Your task to perform on an android device: turn off improve location accuracy Image 0: 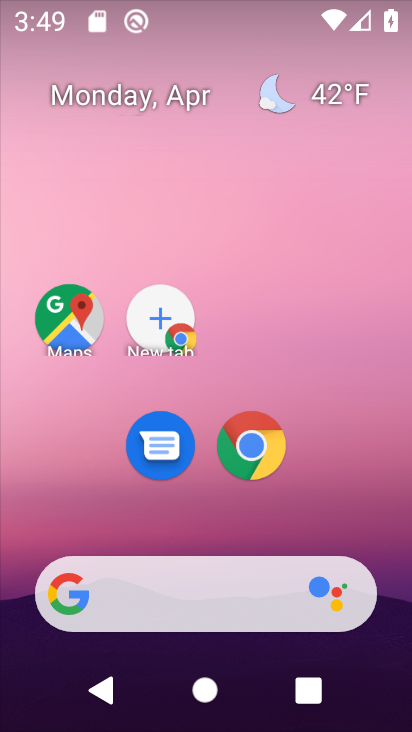
Step 0: drag from (214, 515) to (245, 56)
Your task to perform on an android device: turn off improve location accuracy Image 1: 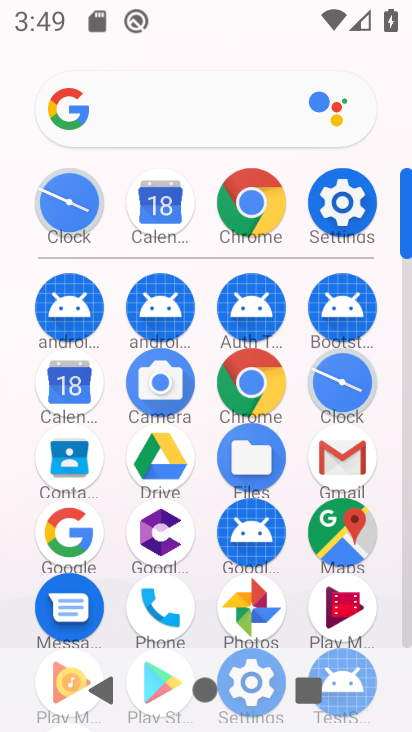
Step 1: click (330, 204)
Your task to perform on an android device: turn off improve location accuracy Image 2: 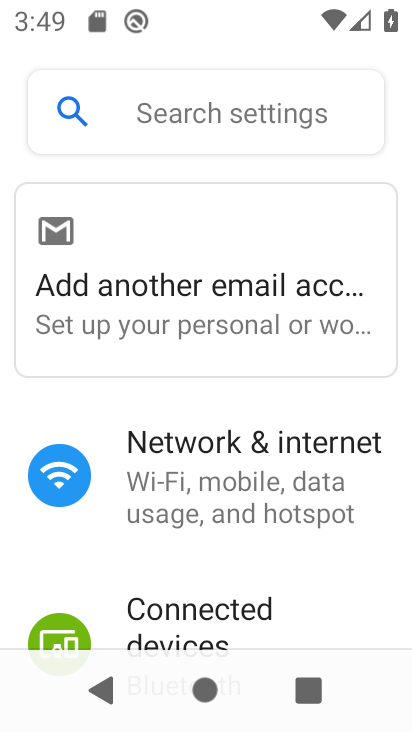
Step 2: drag from (212, 598) to (195, 225)
Your task to perform on an android device: turn off improve location accuracy Image 3: 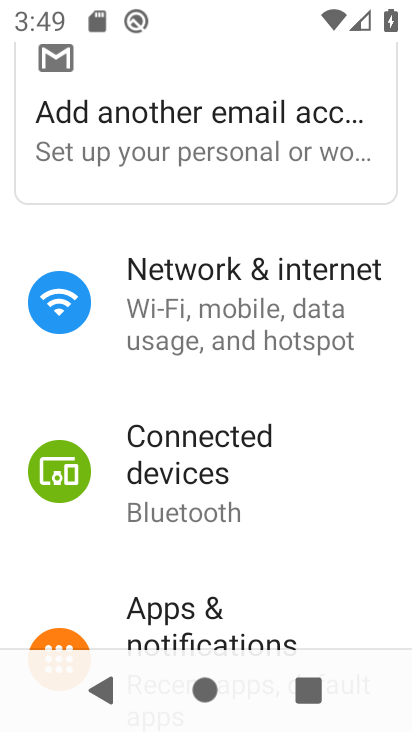
Step 3: drag from (220, 619) to (211, 161)
Your task to perform on an android device: turn off improve location accuracy Image 4: 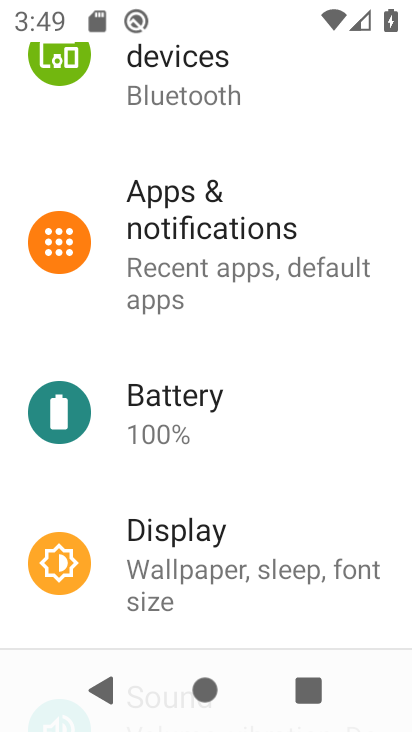
Step 4: drag from (224, 606) to (269, 145)
Your task to perform on an android device: turn off improve location accuracy Image 5: 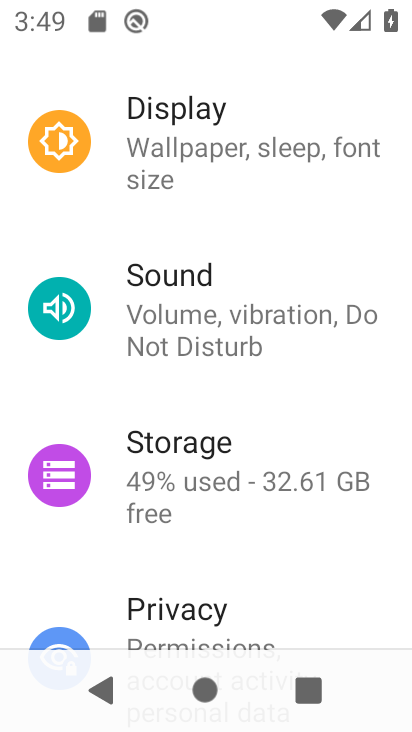
Step 5: drag from (227, 586) to (254, 88)
Your task to perform on an android device: turn off improve location accuracy Image 6: 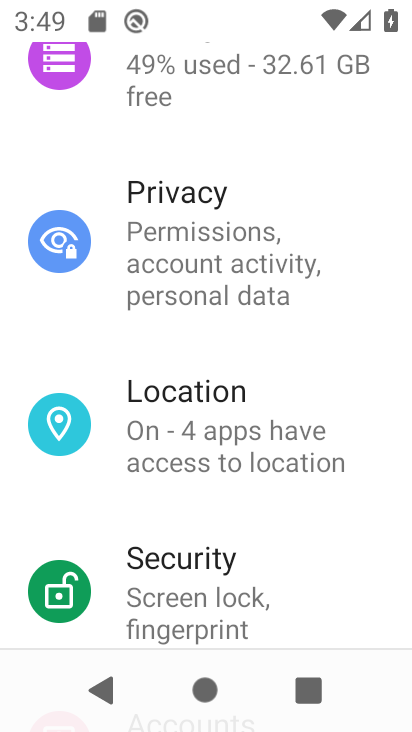
Step 6: click (115, 411)
Your task to perform on an android device: turn off improve location accuracy Image 7: 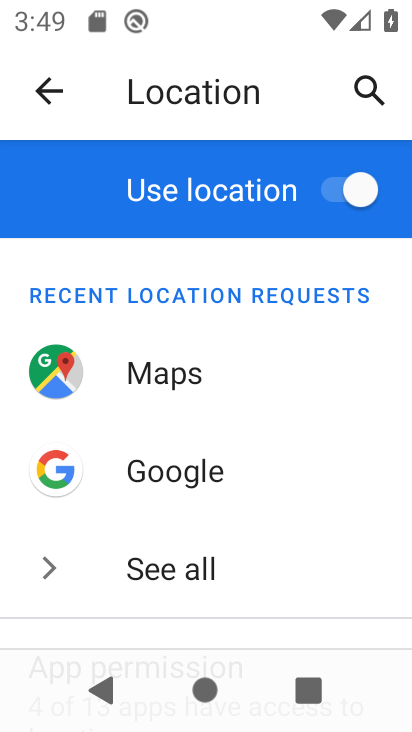
Step 7: drag from (185, 585) to (188, 246)
Your task to perform on an android device: turn off improve location accuracy Image 8: 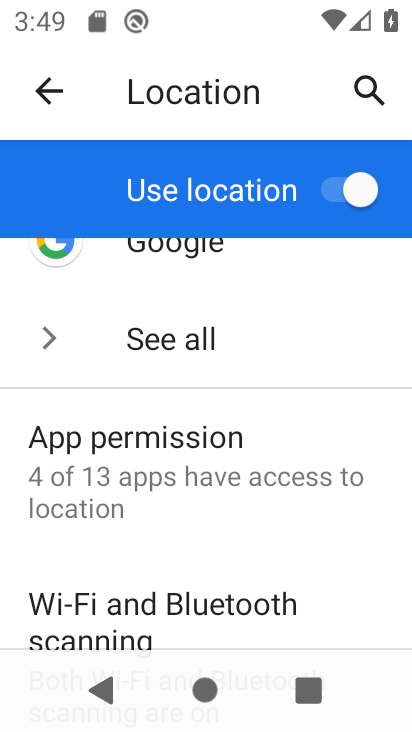
Step 8: drag from (239, 536) to (254, 234)
Your task to perform on an android device: turn off improve location accuracy Image 9: 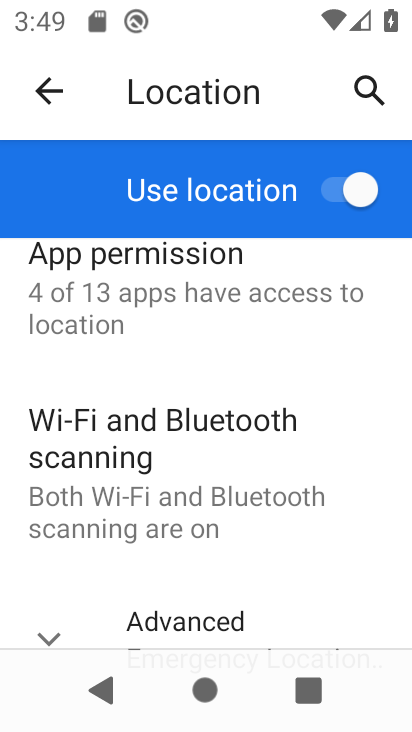
Step 9: drag from (190, 561) to (228, 228)
Your task to perform on an android device: turn off improve location accuracy Image 10: 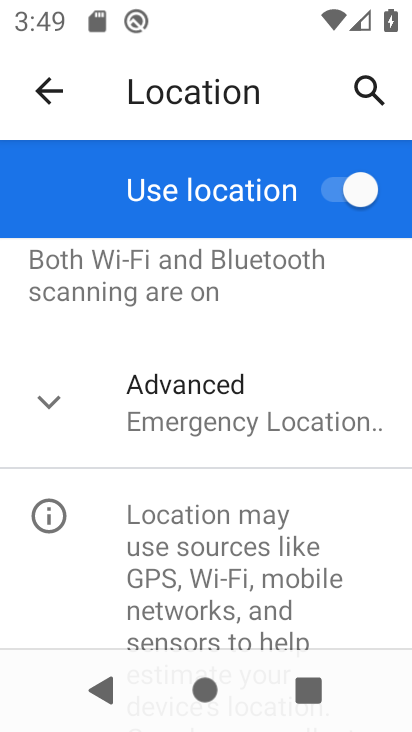
Step 10: click (46, 401)
Your task to perform on an android device: turn off improve location accuracy Image 11: 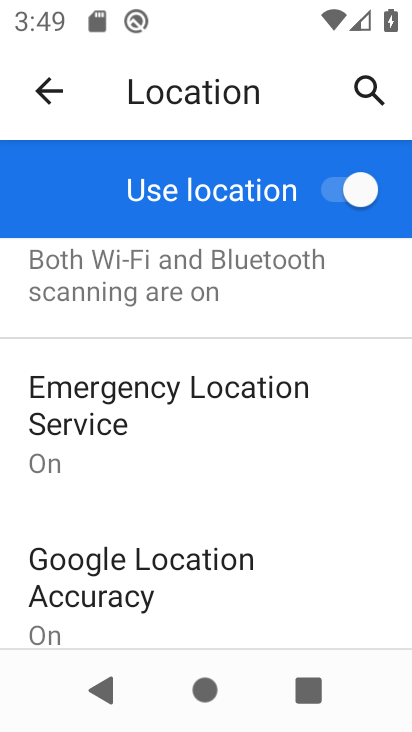
Step 11: click (189, 571)
Your task to perform on an android device: turn off improve location accuracy Image 12: 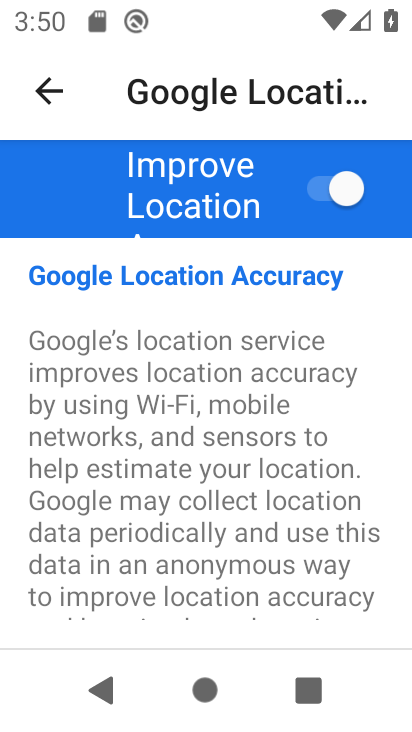
Step 12: click (329, 181)
Your task to perform on an android device: turn off improve location accuracy Image 13: 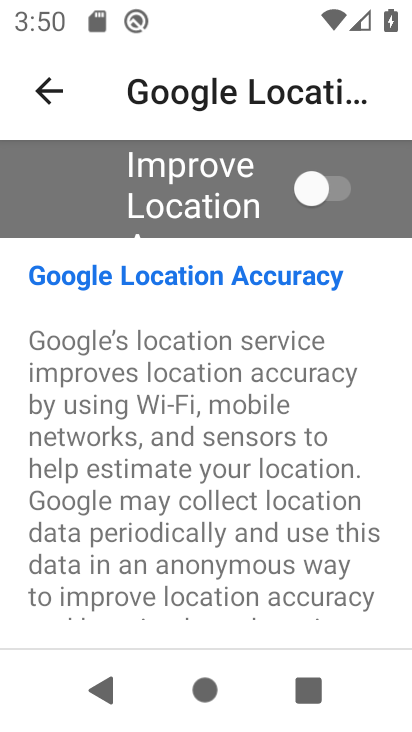
Step 13: task complete